Your task to perform on an android device: change the clock display to show seconds Image 0: 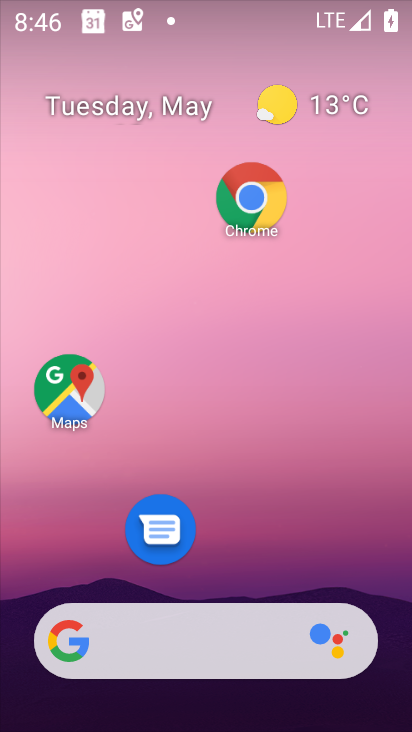
Step 0: drag from (336, 536) to (332, 81)
Your task to perform on an android device: change the clock display to show seconds Image 1: 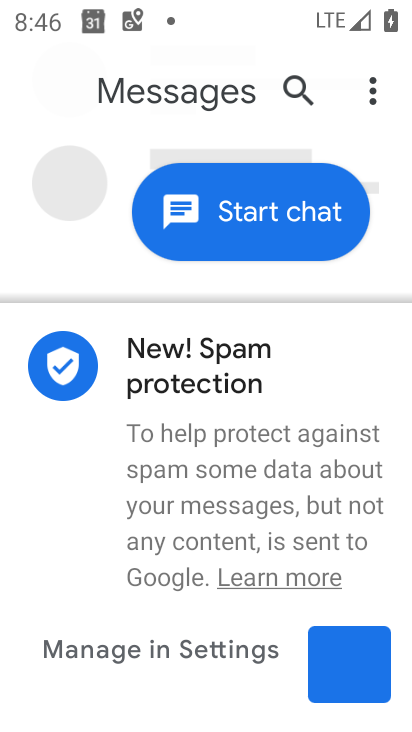
Step 1: press home button
Your task to perform on an android device: change the clock display to show seconds Image 2: 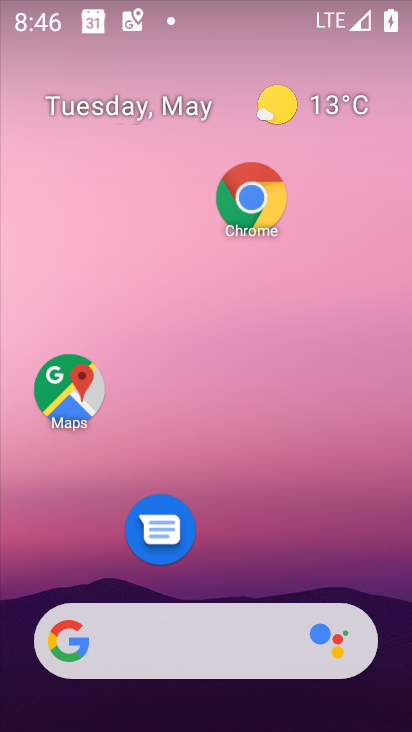
Step 2: drag from (329, 523) to (314, 91)
Your task to perform on an android device: change the clock display to show seconds Image 3: 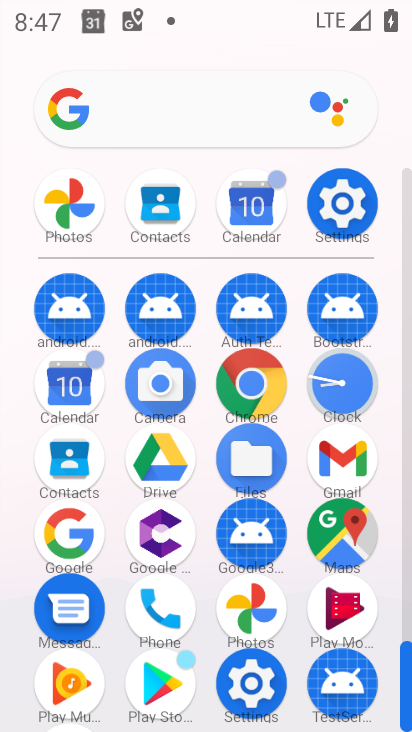
Step 3: click (359, 381)
Your task to perform on an android device: change the clock display to show seconds Image 4: 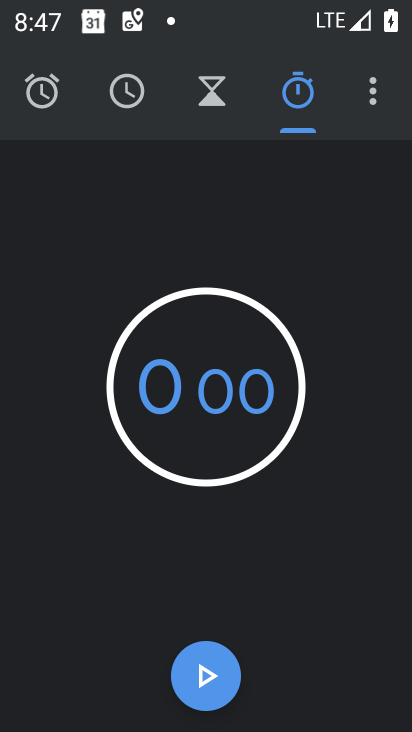
Step 4: click (369, 80)
Your task to perform on an android device: change the clock display to show seconds Image 5: 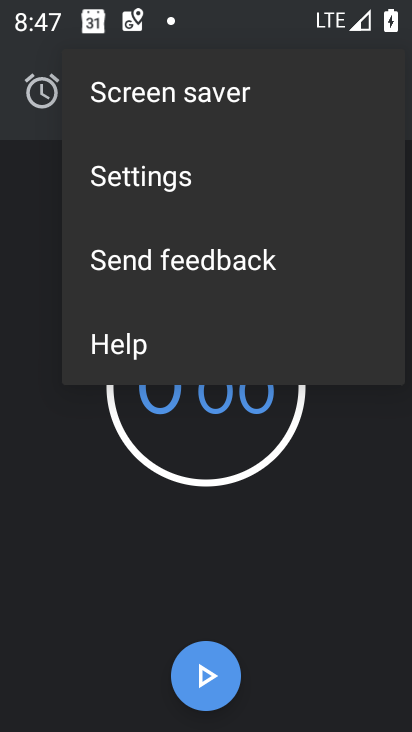
Step 5: click (274, 172)
Your task to perform on an android device: change the clock display to show seconds Image 6: 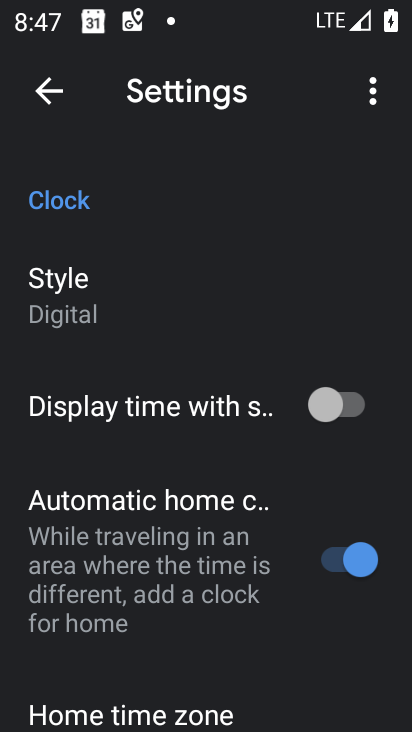
Step 6: click (362, 406)
Your task to perform on an android device: change the clock display to show seconds Image 7: 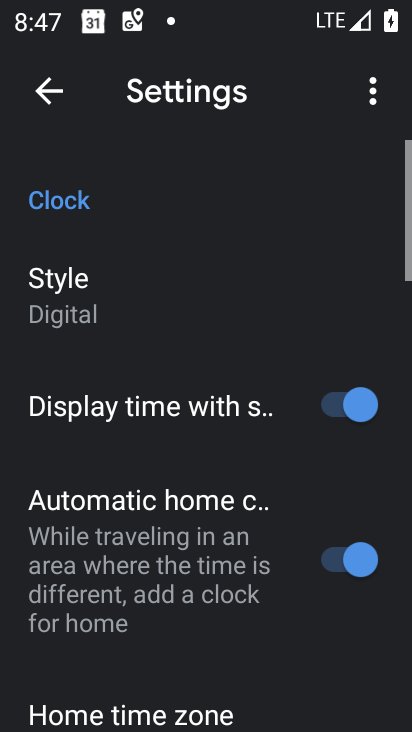
Step 7: task complete